Your task to perform on an android device: search for starred emails in the gmail app Image 0: 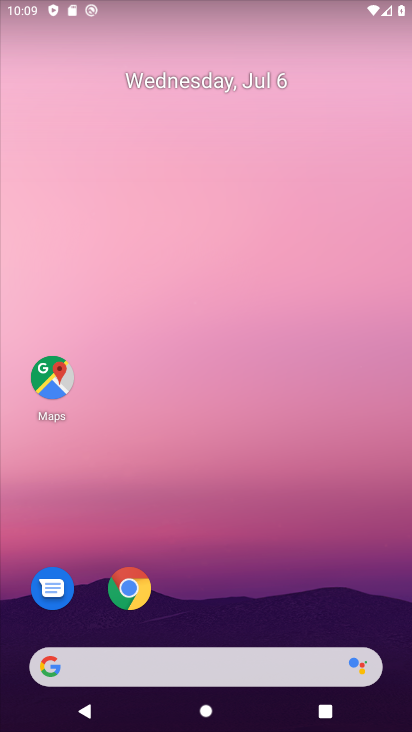
Step 0: drag from (155, 656) to (295, 61)
Your task to perform on an android device: search for starred emails in the gmail app Image 1: 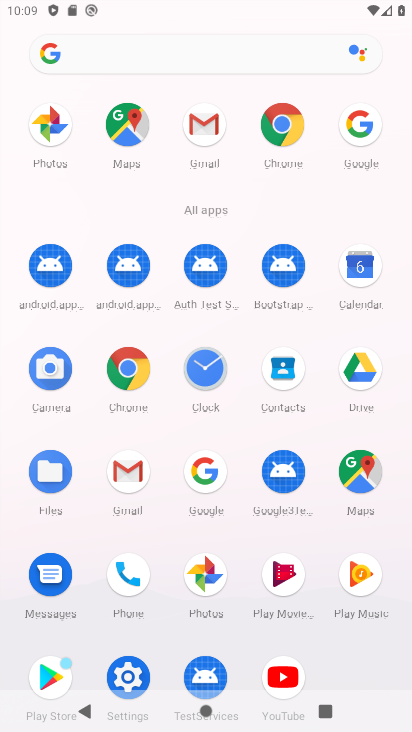
Step 1: click (191, 129)
Your task to perform on an android device: search for starred emails in the gmail app Image 2: 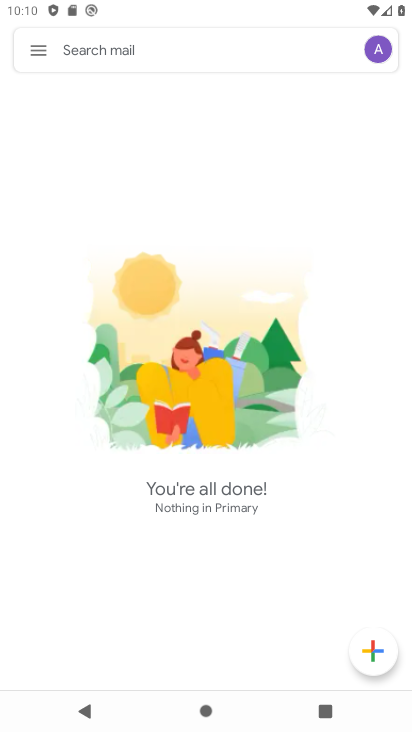
Step 2: click (30, 48)
Your task to perform on an android device: search for starred emails in the gmail app Image 3: 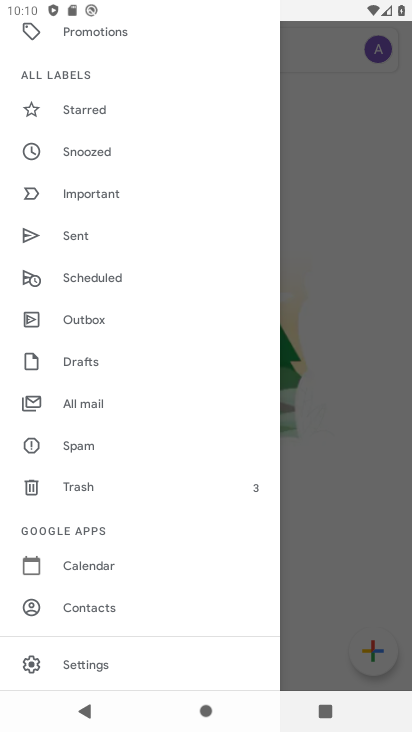
Step 3: click (75, 109)
Your task to perform on an android device: search for starred emails in the gmail app Image 4: 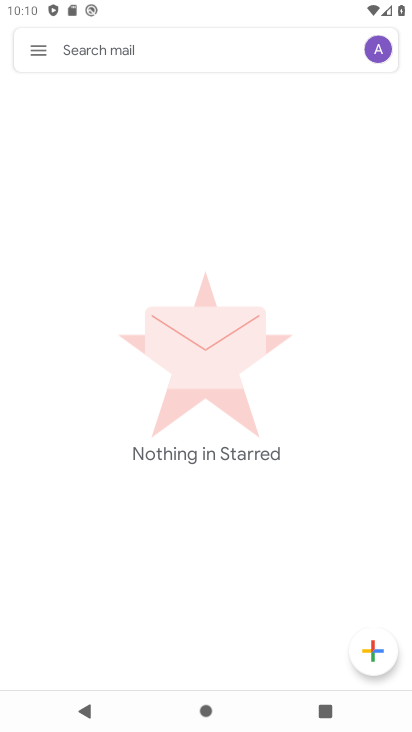
Step 4: task complete